Your task to perform on an android device: change the clock display to show seconds Image 0: 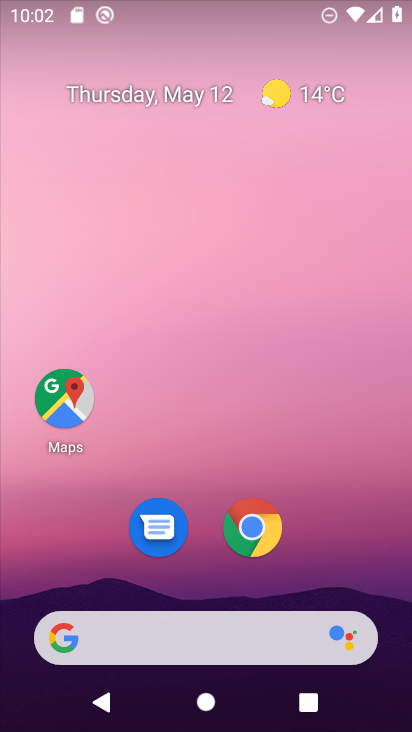
Step 0: drag from (350, 573) to (341, 232)
Your task to perform on an android device: change the clock display to show seconds Image 1: 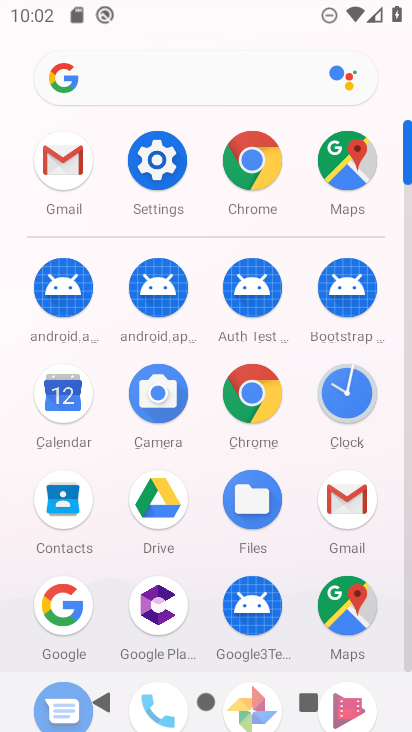
Step 1: click (352, 406)
Your task to perform on an android device: change the clock display to show seconds Image 2: 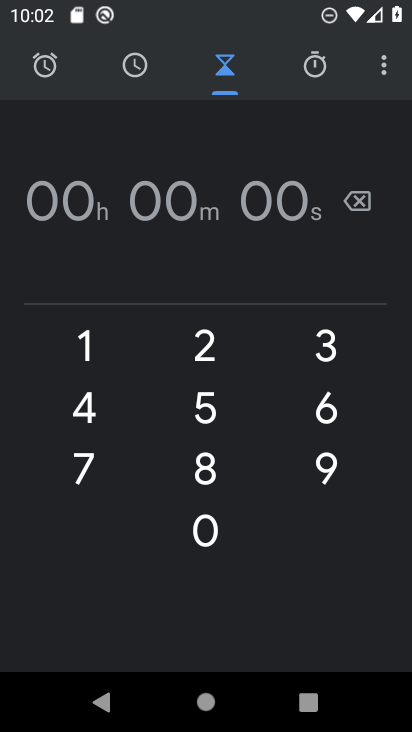
Step 2: click (403, 80)
Your task to perform on an android device: change the clock display to show seconds Image 3: 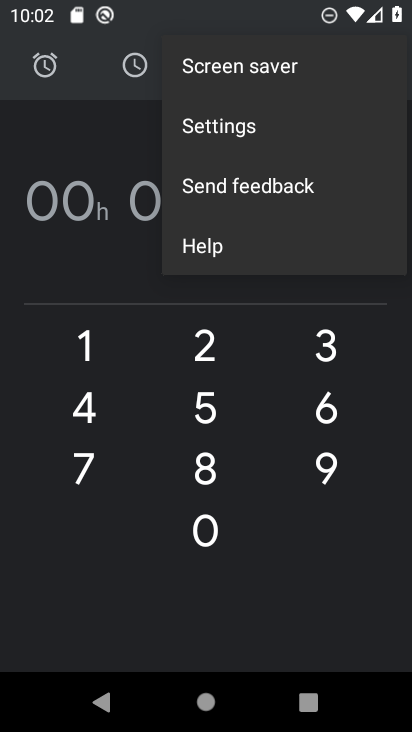
Step 3: click (249, 124)
Your task to perform on an android device: change the clock display to show seconds Image 4: 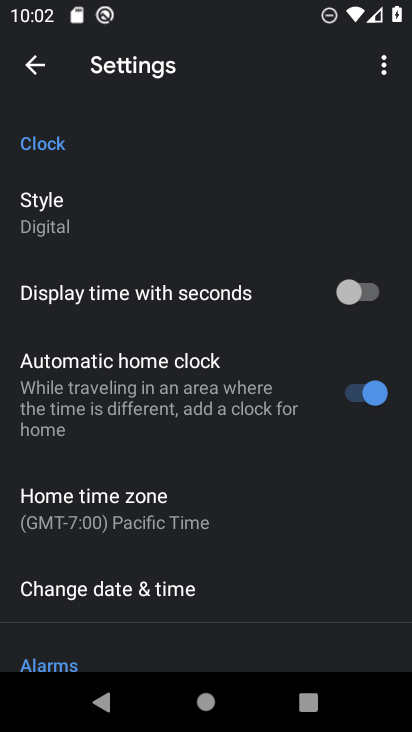
Step 4: click (335, 295)
Your task to perform on an android device: change the clock display to show seconds Image 5: 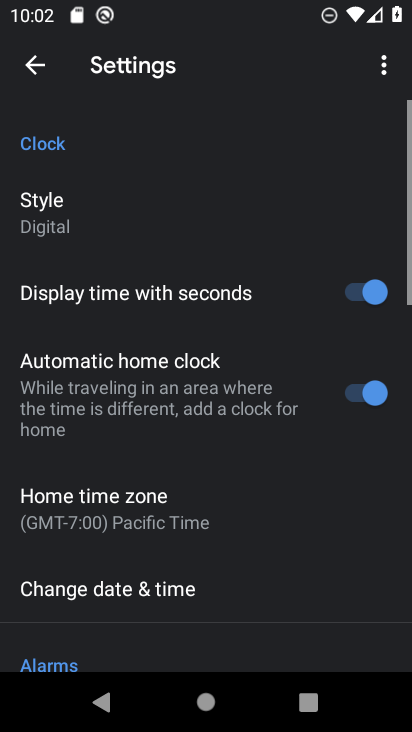
Step 5: task complete